Your task to perform on an android device: open a new tab in the chrome app Image 0: 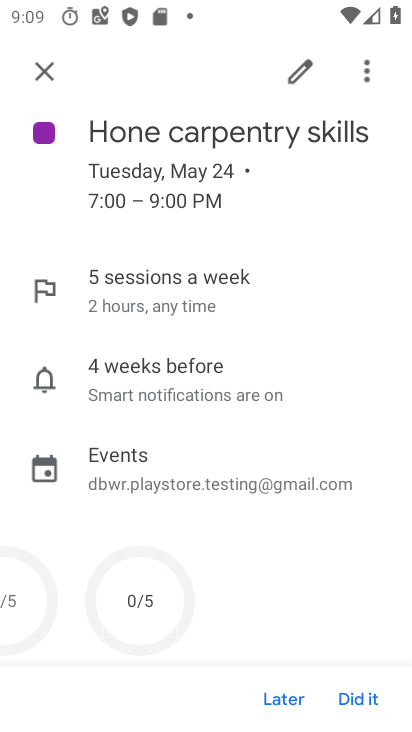
Step 0: press home button
Your task to perform on an android device: open a new tab in the chrome app Image 1: 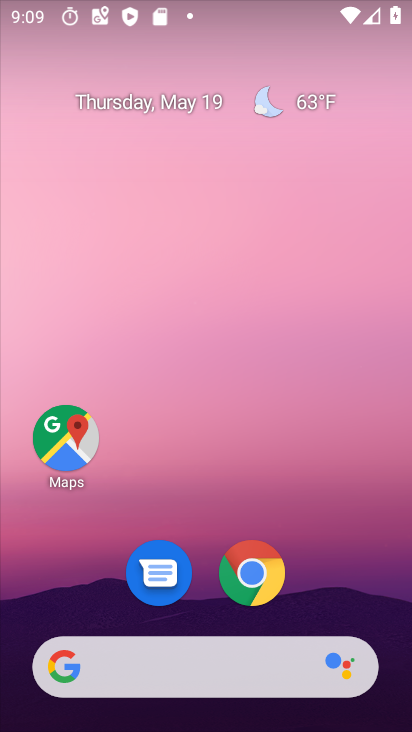
Step 1: click (244, 580)
Your task to perform on an android device: open a new tab in the chrome app Image 2: 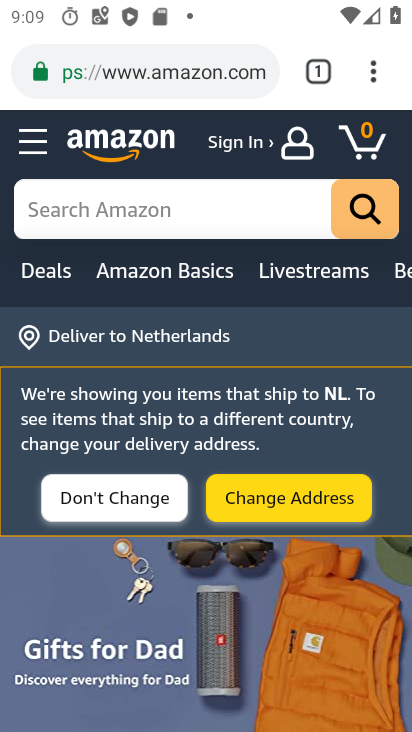
Step 2: click (377, 74)
Your task to perform on an android device: open a new tab in the chrome app Image 3: 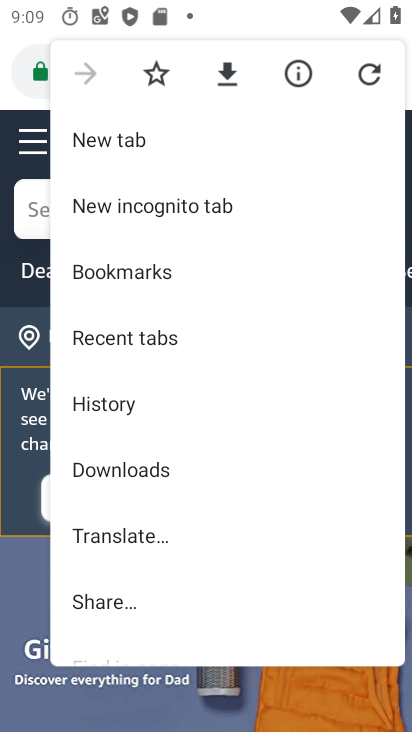
Step 3: click (113, 143)
Your task to perform on an android device: open a new tab in the chrome app Image 4: 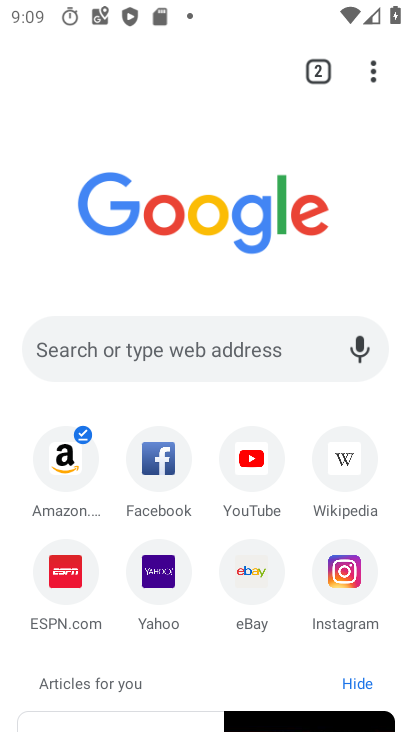
Step 4: task complete